Your task to perform on an android device: Open Google Chrome and open the bookmarks view Image 0: 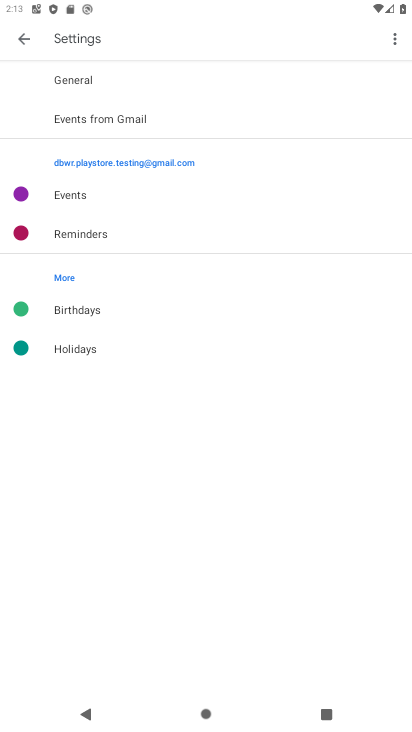
Step 0: press home button
Your task to perform on an android device: Open Google Chrome and open the bookmarks view Image 1: 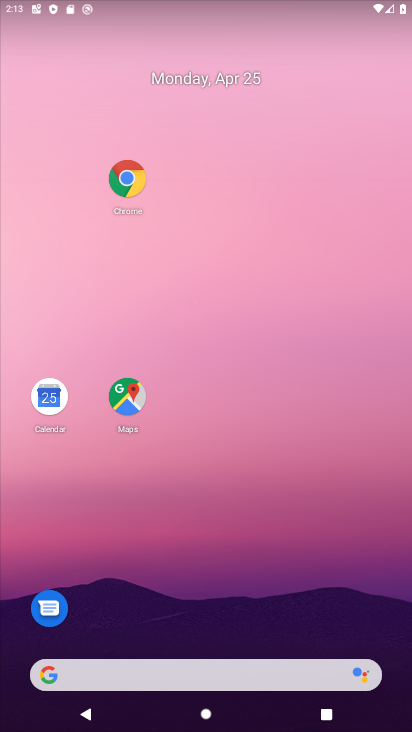
Step 1: click (129, 177)
Your task to perform on an android device: Open Google Chrome and open the bookmarks view Image 2: 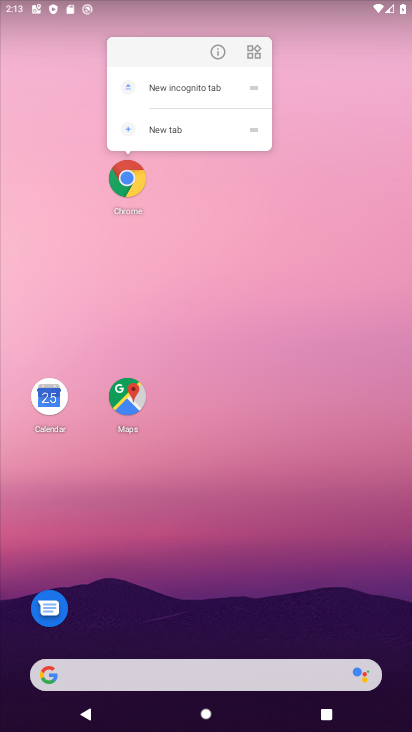
Step 2: click (223, 49)
Your task to perform on an android device: Open Google Chrome and open the bookmarks view Image 3: 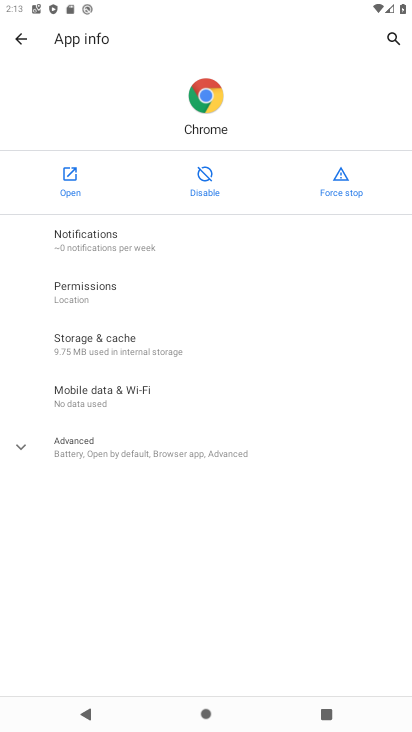
Step 3: click (58, 178)
Your task to perform on an android device: Open Google Chrome and open the bookmarks view Image 4: 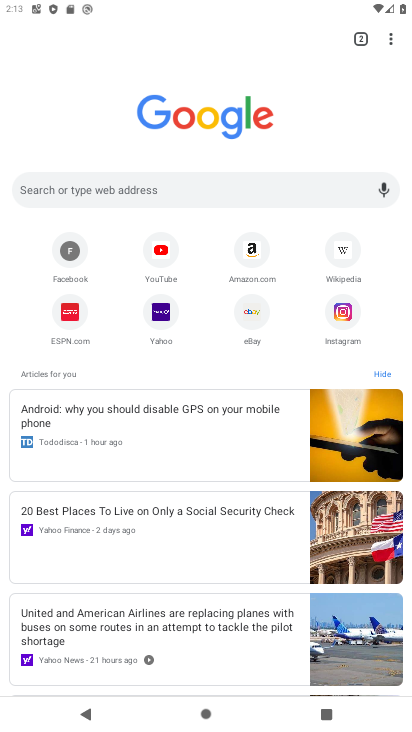
Step 4: click (386, 30)
Your task to perform on an android device: Open Google Chrome and open the bookmarks view Image 5: 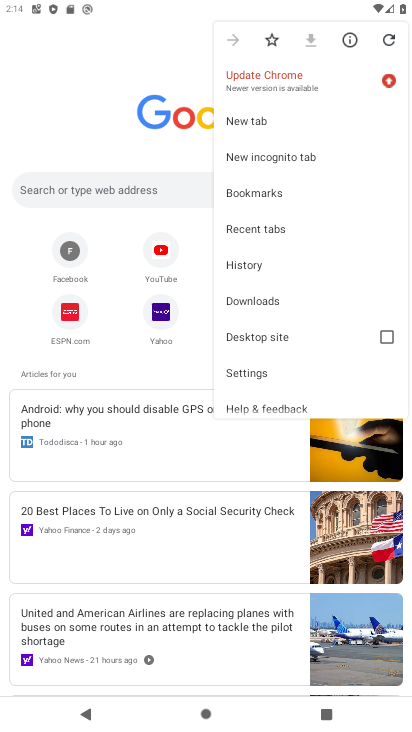
Step 5: click (258, 199)
Your task to perform on an android device: Open Google Chrome and open the bookmarks view Image 6: 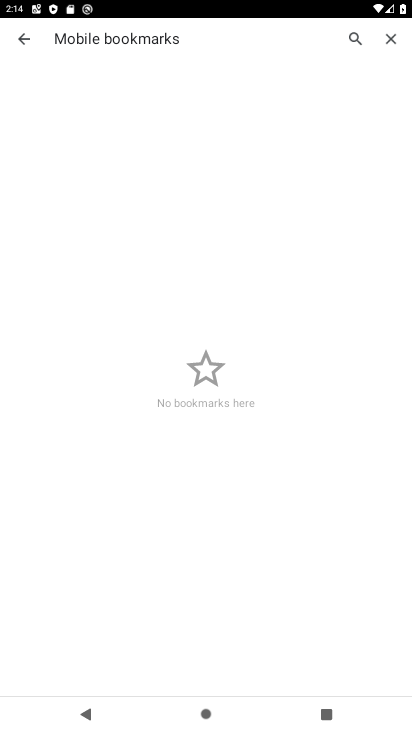
Step 6: task complete